Your task to perform on an android device: empty trash in the gmail app Image 0: 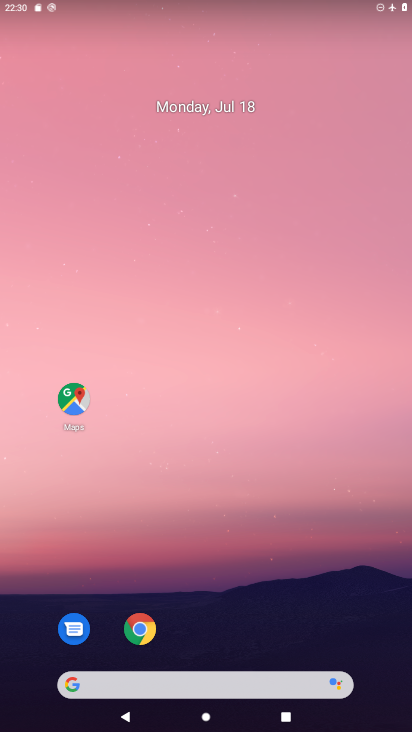
Step 0: drag from (313, 628) to (237, 10)
Your task to perform on an android device: empty trash in the gmail app Image 1: 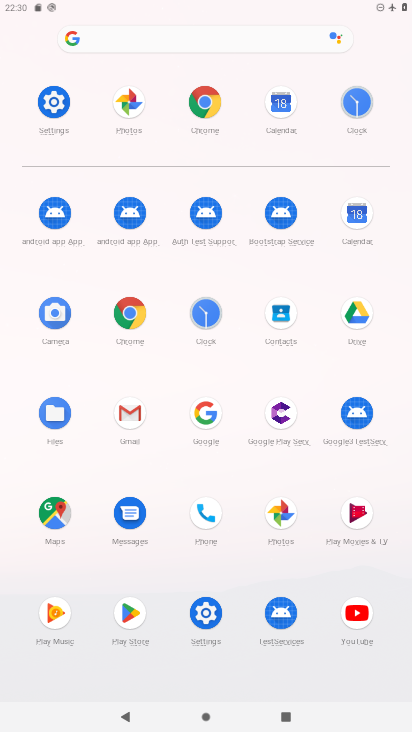
Step 1: click (138, 417)
Your task to perform on an android device: empty trash in the gmail app Image 2: 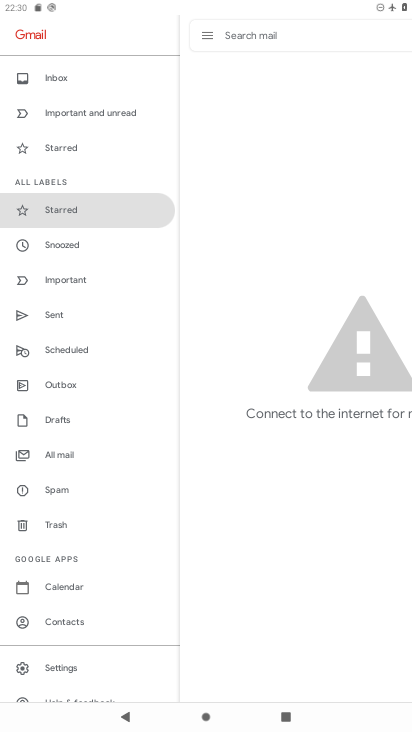
Step 2: click (59, 525)
Your task to perform on an android device: empty trash in the gmail app Image 3: 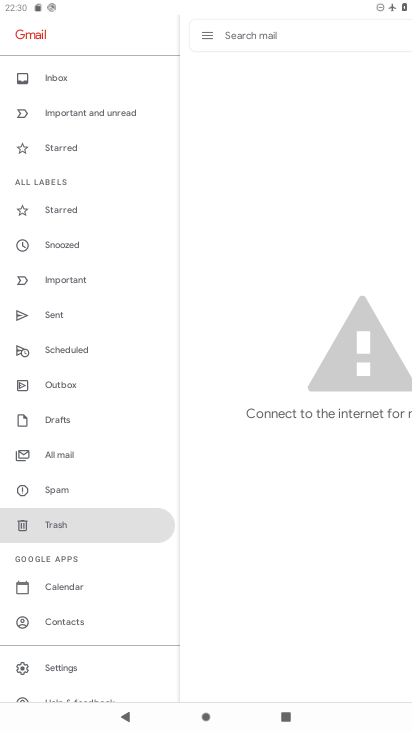
Step 3: task complete